Your task to perform on an android device: set the timer Image 0: 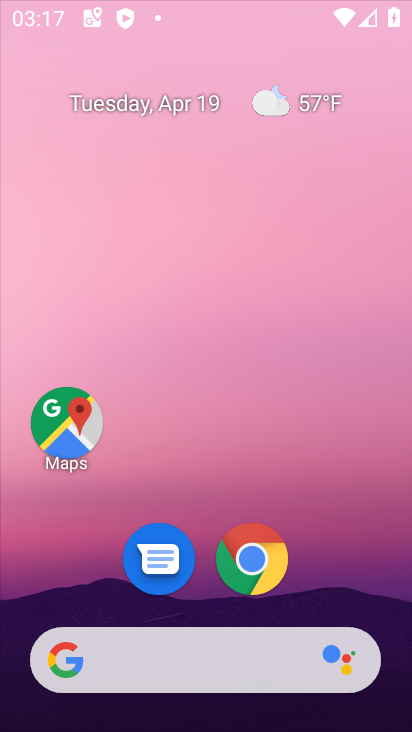
Step 0: drag from (238, 197) to (246, 24)
Your task to perform on an android device: set the timer Image 1: 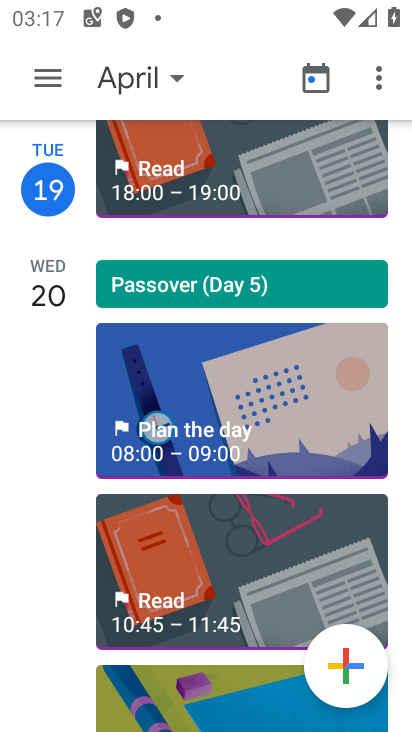
Step 1: press home button
Your task to perform on an android device: set the timer Image 2: 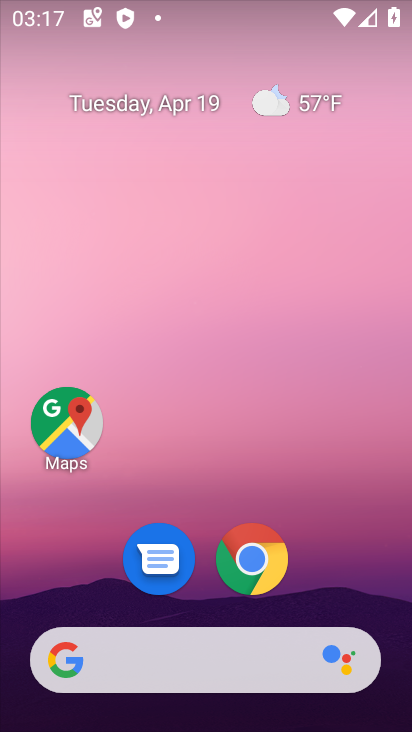
Step 2: drag from (308, 611) to (331, 0)
Your task to perform on an android device: set the timer Image 3: 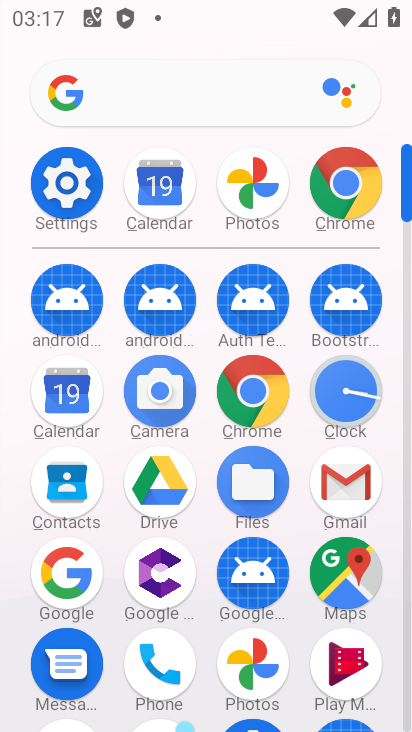
Step 3: click (343, 384)
Your task to perform on an android device: set the timer Image 4: 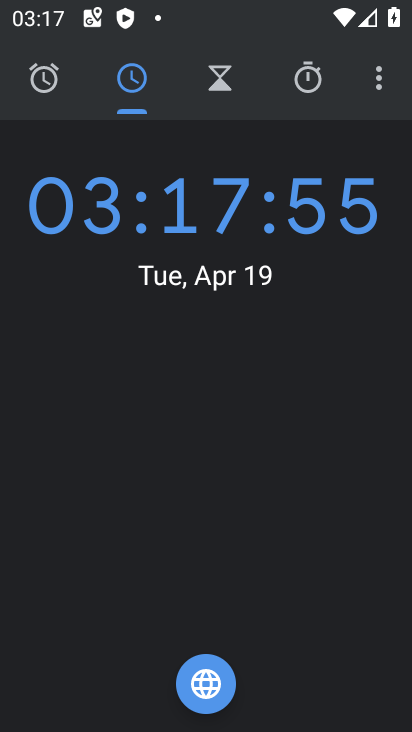
Step 4: click (224, 82)
Your task to perform on an android device: set the timer Image 5: 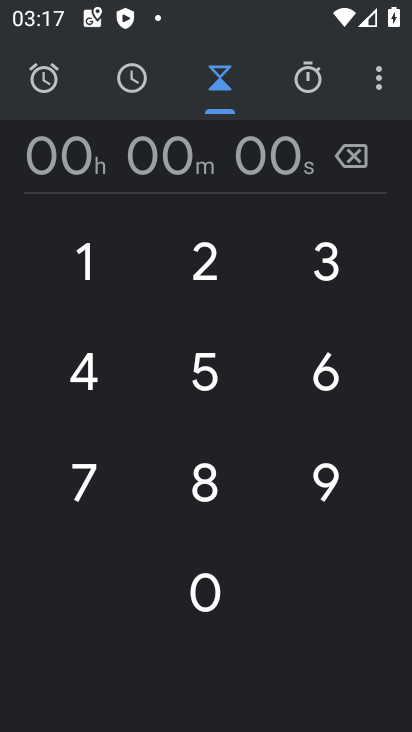
Step 5: click (316, 260)
Your task to perform on an android device: set the timer Image 6: 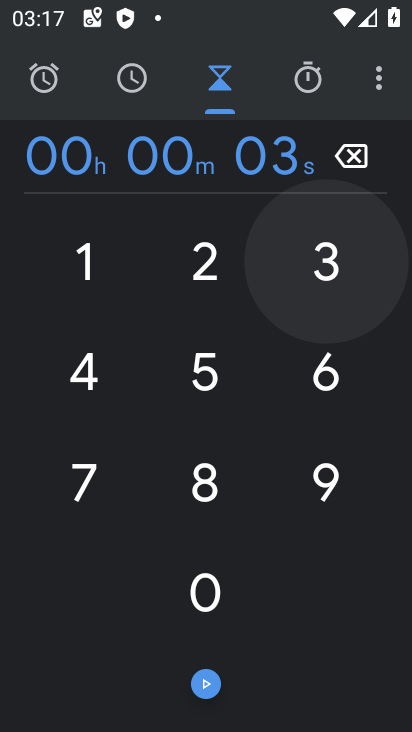
Step 6: click (320, 263)
Your task to perform on an android device: set the timer Image 7: 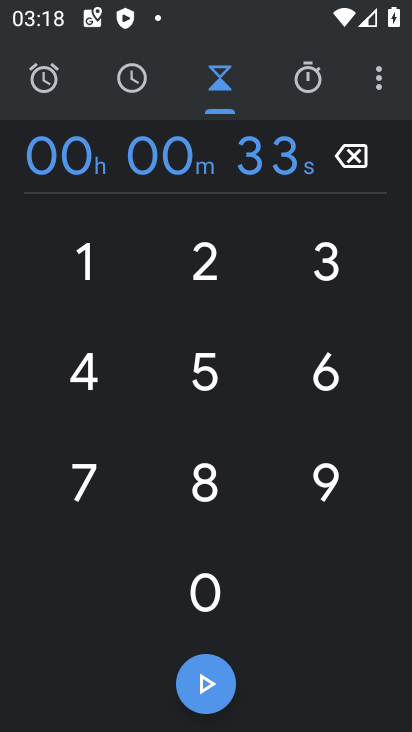
Step 7: click (209, 589)
Your task to perform on an android device: set the timer Image 8: 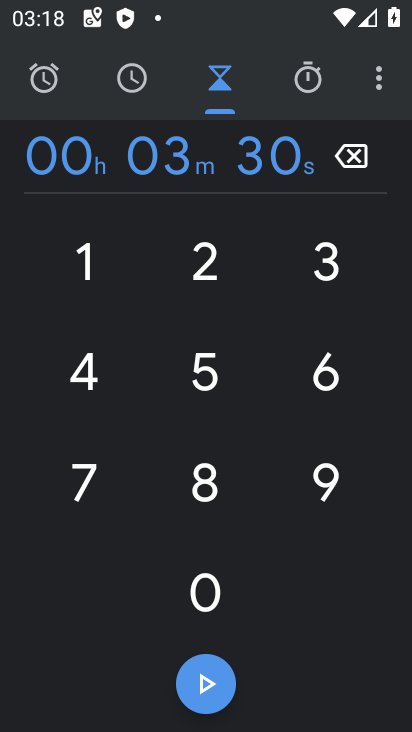
Step 8: click (207, 684)
Your task to perform on an android device: set the timer Image 9: 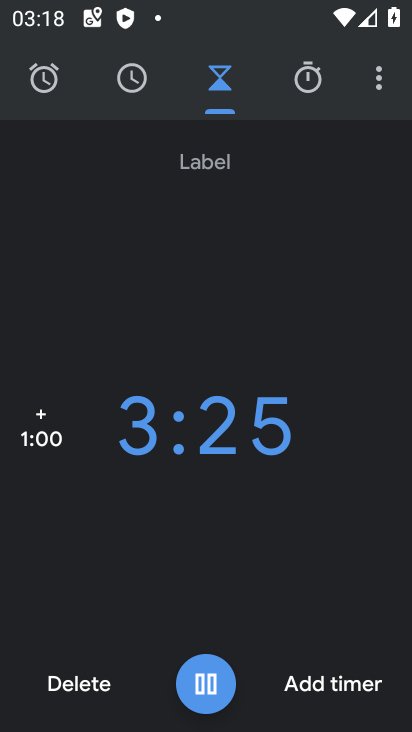
Step 9: task complete